Your task to perform on an android device: Go to Yahoo.com Image 0: 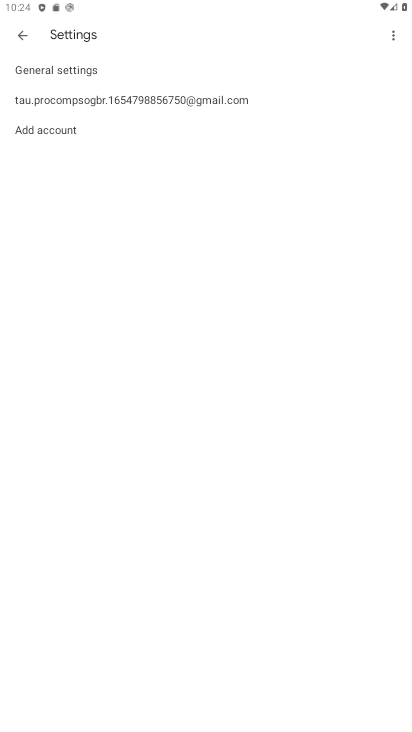
Step 0: press home button
Your task to perform on an android device: Go to Yahoo.com Image 1: 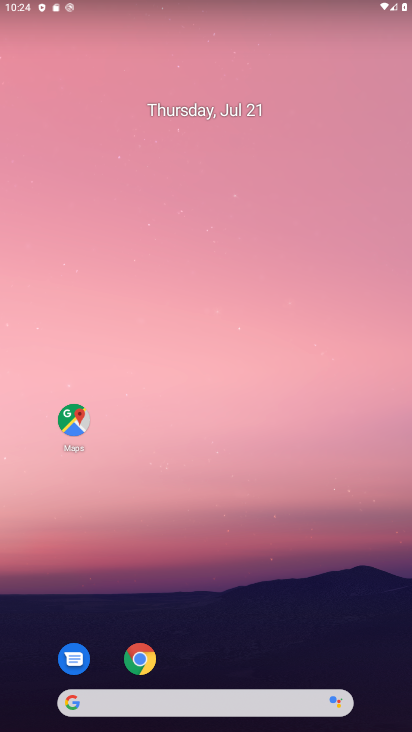
Step 1: click (137, 656)
Your task to perform on an android device: Go to Yahoo.com Image 2: 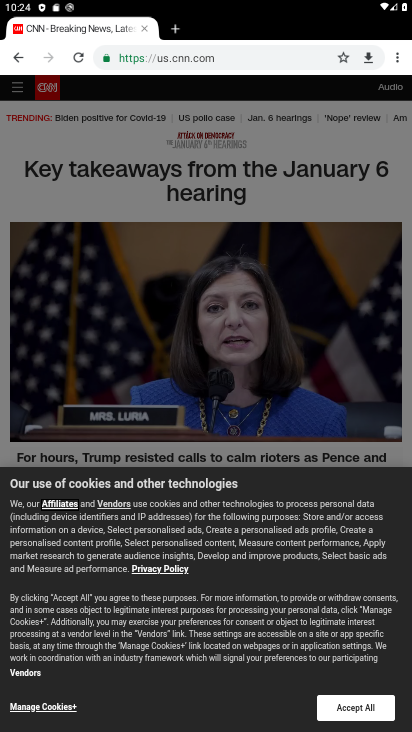
Step 2: click (398, 58)
Your task to perform on an android device: Go to Yahoo.com Image 3: 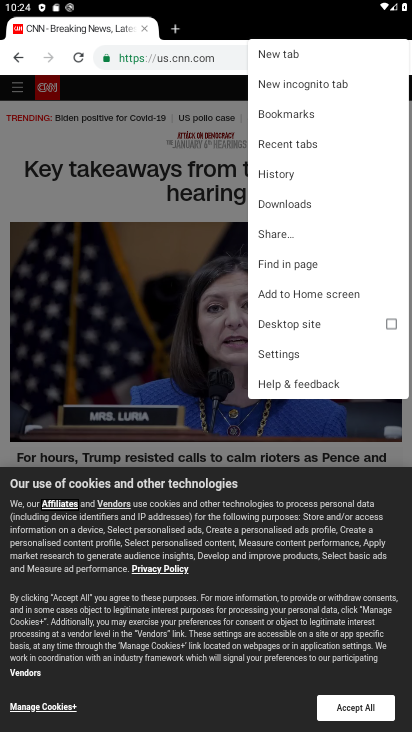
Step 3: click (289, 54)
Your task to perform on an android device: Go to Yahoo.com Image 4: 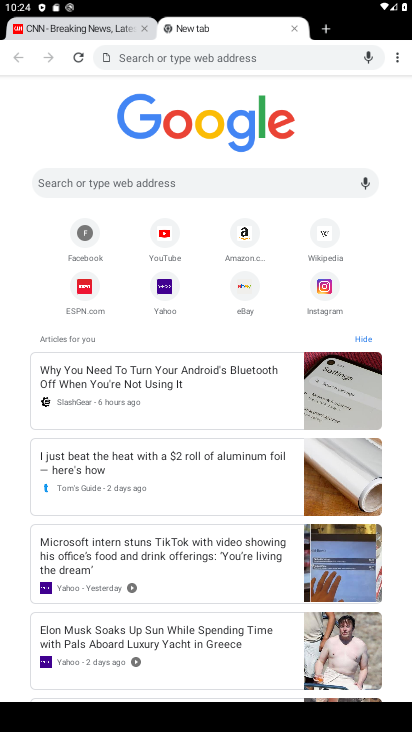
Step 4: click (163, 284)
Your task to perform on an android device: Go to Yahoo.com Image 5: 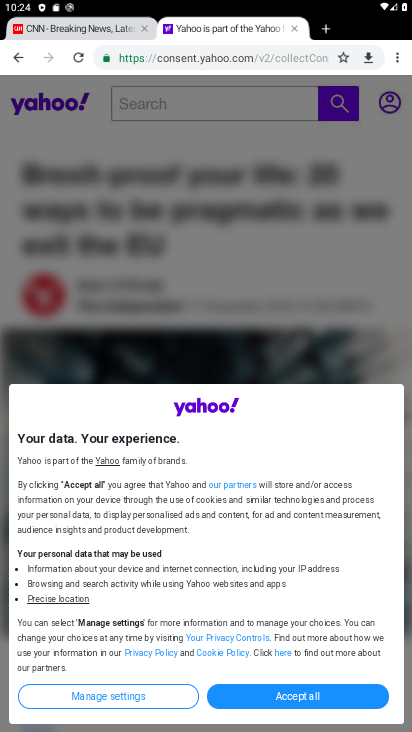
Step 5: click (308, 694)
Your task to perform on an android device: Go to Yahoo.com Image 6: 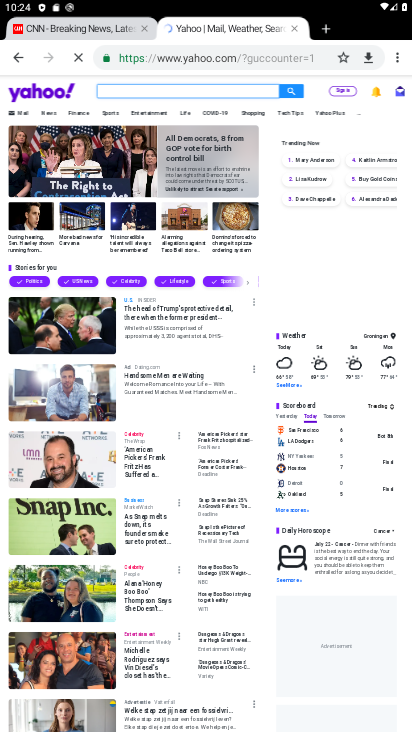
Step 6: task complete